Your task to perform on an android device: change timer sound Image 0: 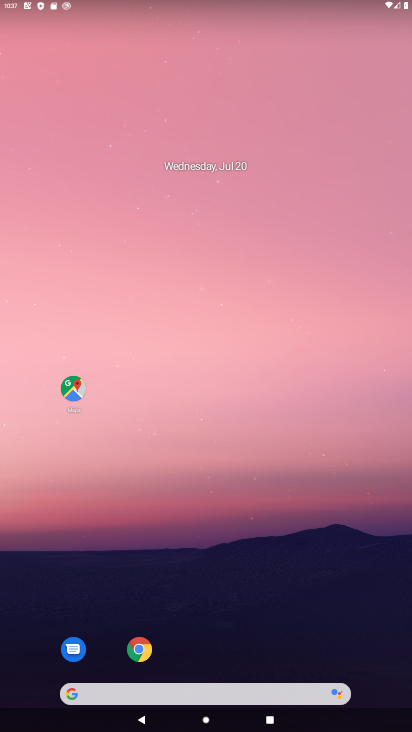
Step 0: drag from (206, 672) to (289, 130)
Your task to perform on an android device: change timer sound Image 1: 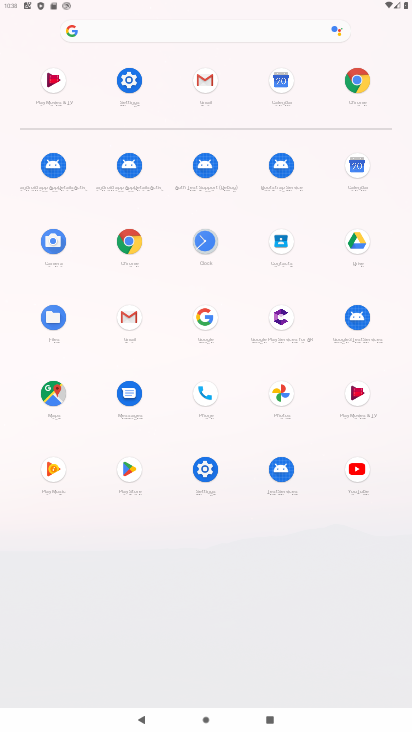
Step 1: click (110, 103)
Your task to perform on an android device: change timer sound Image 2: 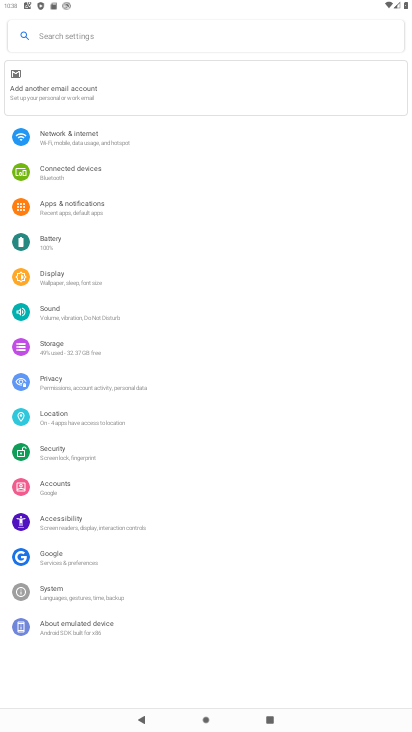
Step 2: click (102, 304)
Your task to perform on an android device: change timer sound Image 3: 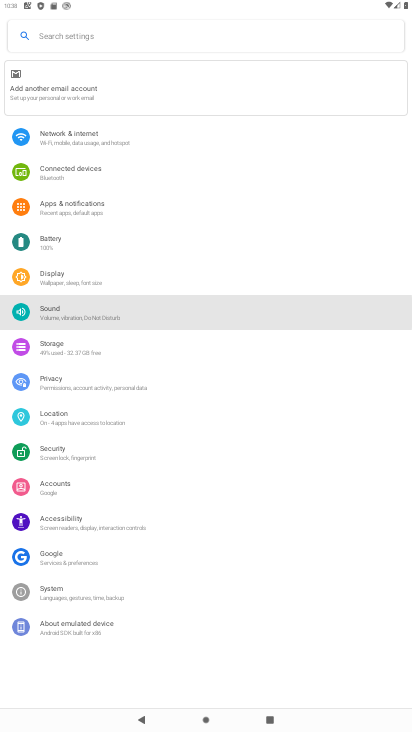
Step 3: click (102, 304)
Your task to perform on an android device: change timer sound Image 4: 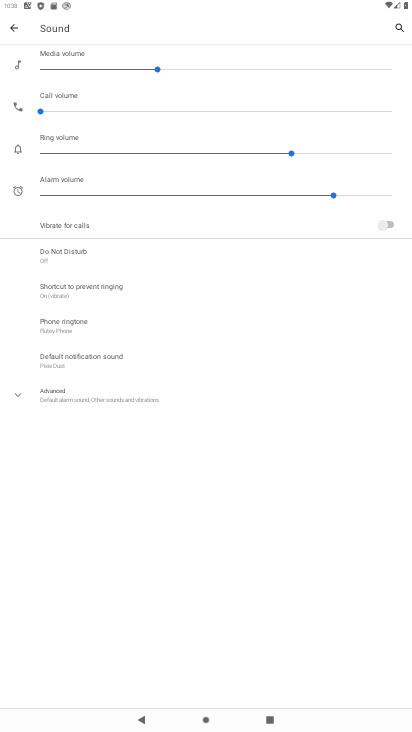
Step 4: task complete